Your task to perform on an android device: Add "lenovo thinkpad" to the cart on newegg.com, then select checkout. Image 0: 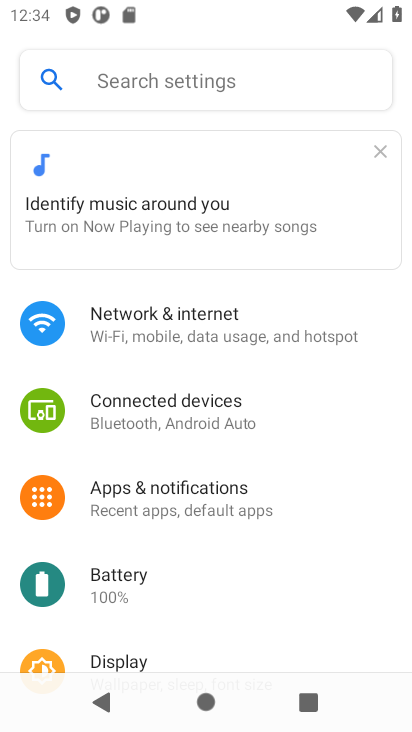
Step 0: press home button
Your task to perform on an android device: Add "lenovo thinkpad" to the cart on newegg.com, then select checkout. Image 1: 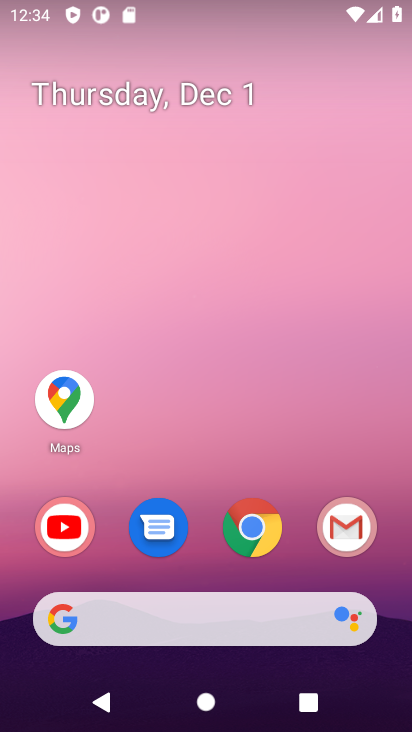
Step 1: click (261, 531)
Your task to perform on an android device: Add "lenovo thinkpad" to the cart on newegg.com, then select checkout. Image 2: 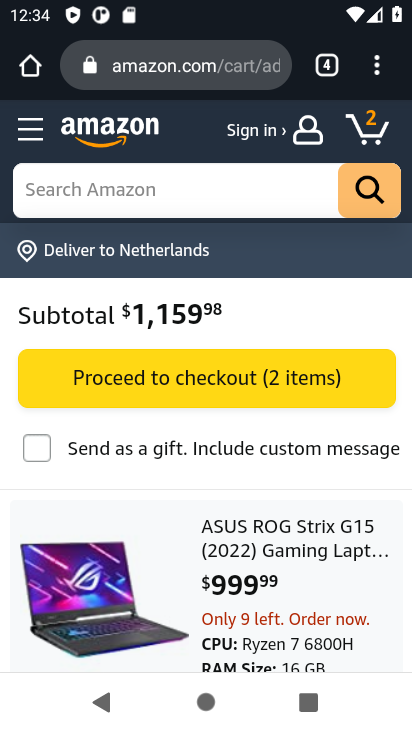
Step 2: click (192, 70)
Your task to perform on an android device: Add "lenovo thinkpad" to the cart on newegg.com, then select checkout. Image 3: 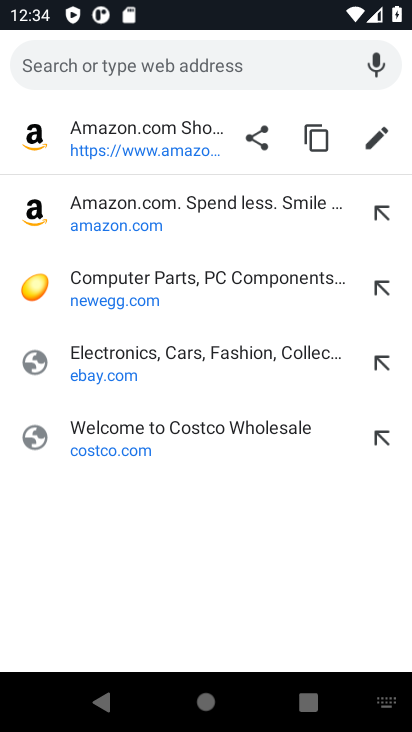
Step 3: click (87, 300)
Your task to perform on an android device: Add "lenovo thinkpad" to the cart on newegg.com, then select checkout. Image 4: 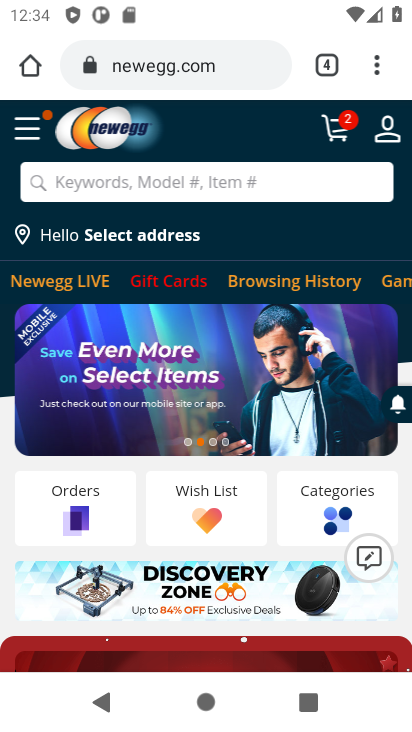
Step 4: click (90, 190)
Your task to perform on an android device: Add "lenovo thinkpad" to the cart on newegg.com, then select checkout. Image 5: 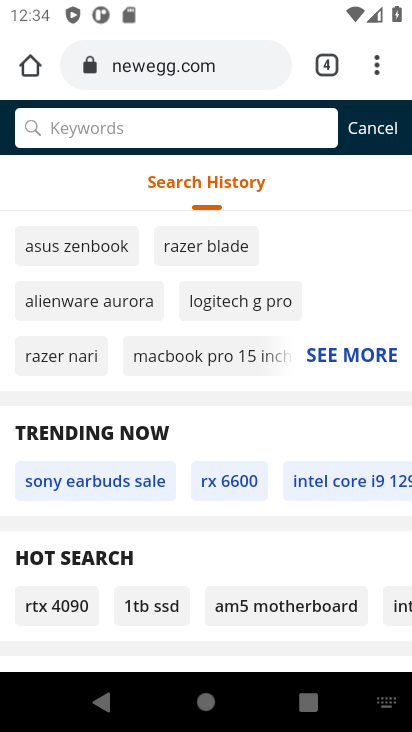
Step 5: type "lenovo thinkpad"
Your task to perform on an android device: Add "lenovo thinkpad" to the cart on newegg.com, then select checkout. Image 6: 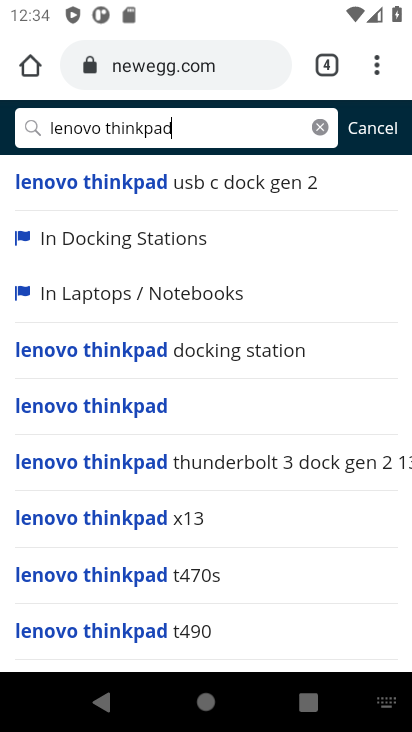
Step 6: click (112, 407)
Your task to perform on an android device: Add "lenovo thinkpad" to the cart on newegg.com, then select checkout. Image 7: 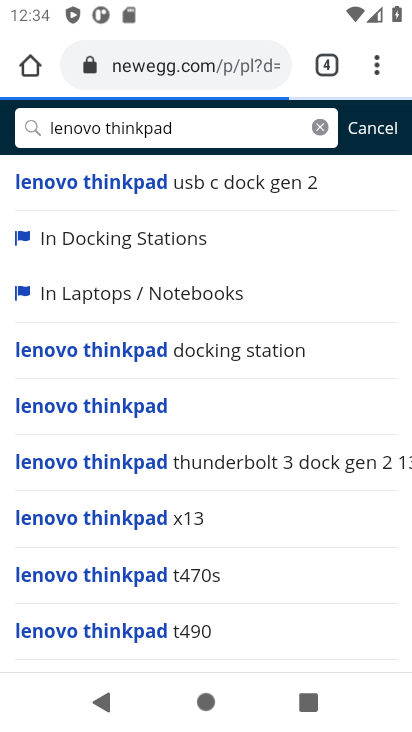
Step 7: click (112, 407)
Your task to perform on an android device: Add "lenovo thinkpad" to the cart on newegg.com, then select checkout. Image 8: 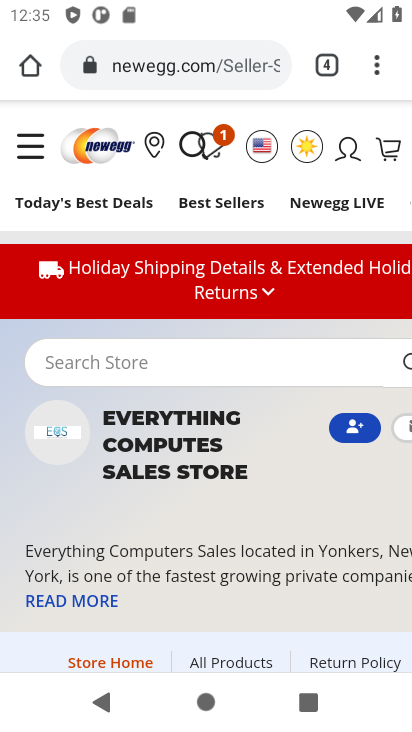
Step 8: press back button
Your task to perform on an android device: Add "lenovo thinkpad" to the cart on newegg.com, then select checkout. Image 9: 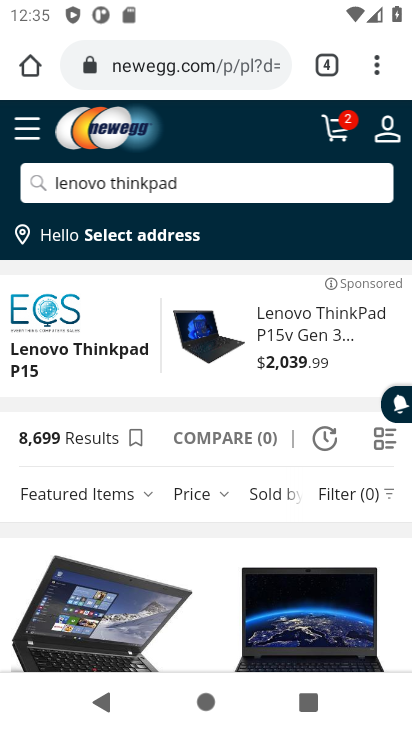
Step 9: drag from (146, 414) to (145, 212)
Your task to perform on an android device: Add "lenovo thinkpad" to the cart on newegg.com, then select checkout. Image 10: 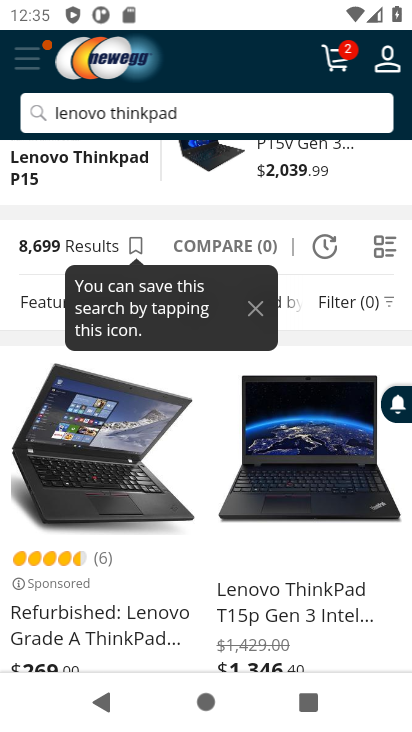
Step 10: drag from (69, 435) to (68, 289)
Your task to perform on an android device: Add "lenovo thinkpad" to the cart on newegg.com, then select checkout. Image 11: 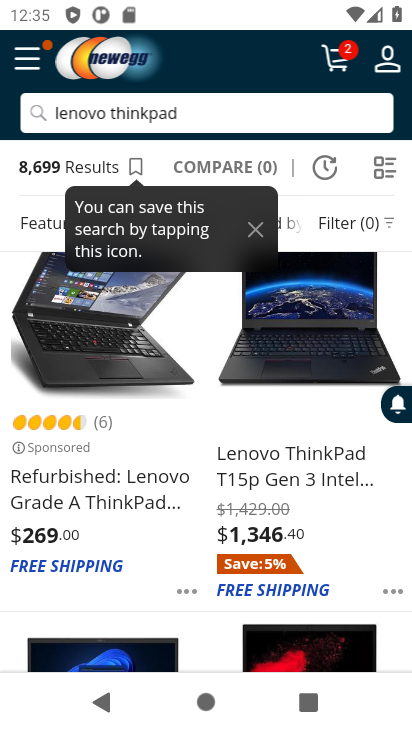
Step 11: click (85, 478)
Your task to perform on an android device: Add "lenovo thinkpad" to the cart on newegg.com, then select checkout. Image 12: 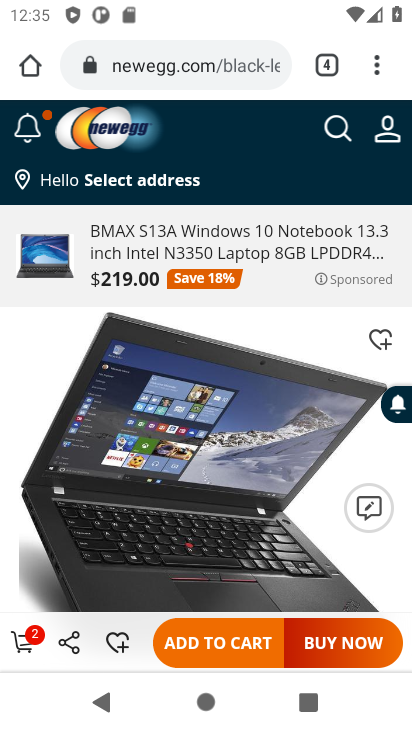
Step 12: drag from (121, 528) to (104, 286)
Your task to perform on an android device: Add "lenovo thinkpad" to the cart on newegg.com, then select checkout. Image 13: 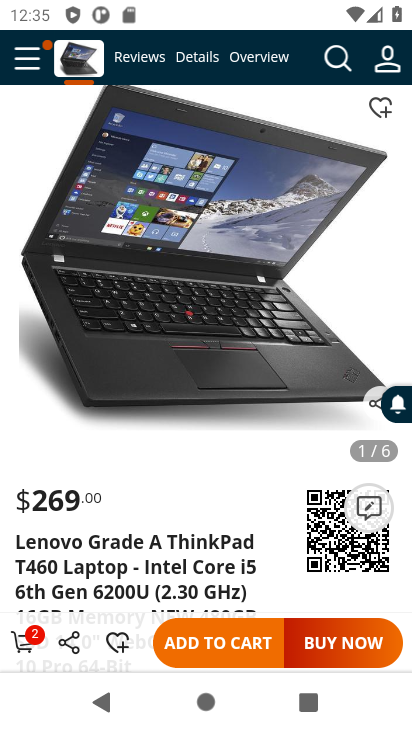
Step 13: click (189, 641)
Your task to perform on an android device: Add "lenovo thinkpad" to the cart on newegg.com, then select checkout. Image 14: 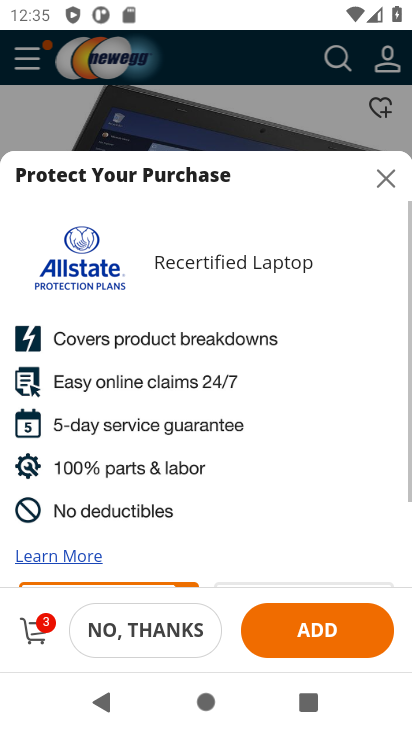
Step 14: click (40, 631)
Your task to perform on an android device: Add "lenovo thinkpad" to the cart on newegg.com, then select checkout. Image 15: 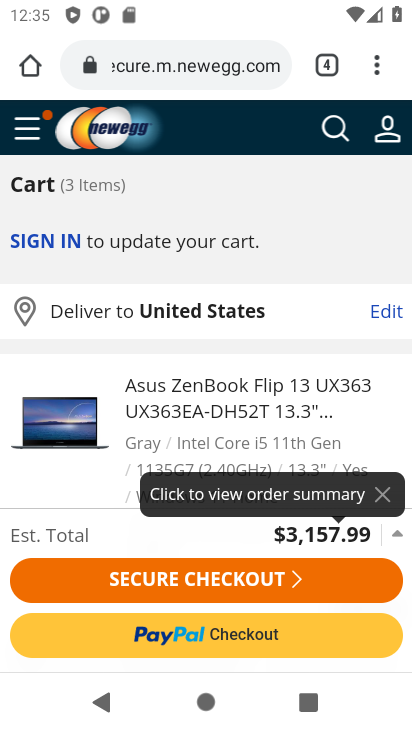
Step 15: click (189, 582)
Your task to perform on an android device: Add "lenovo thinkpad" to the cart on newegg.com, then select checkout. Image 16: 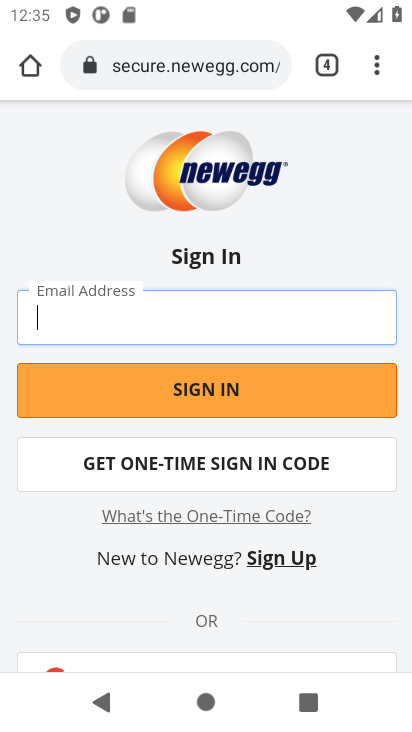
Step 16: task complete